Your task to perform on an android device: Open Reddit.com Image 0: 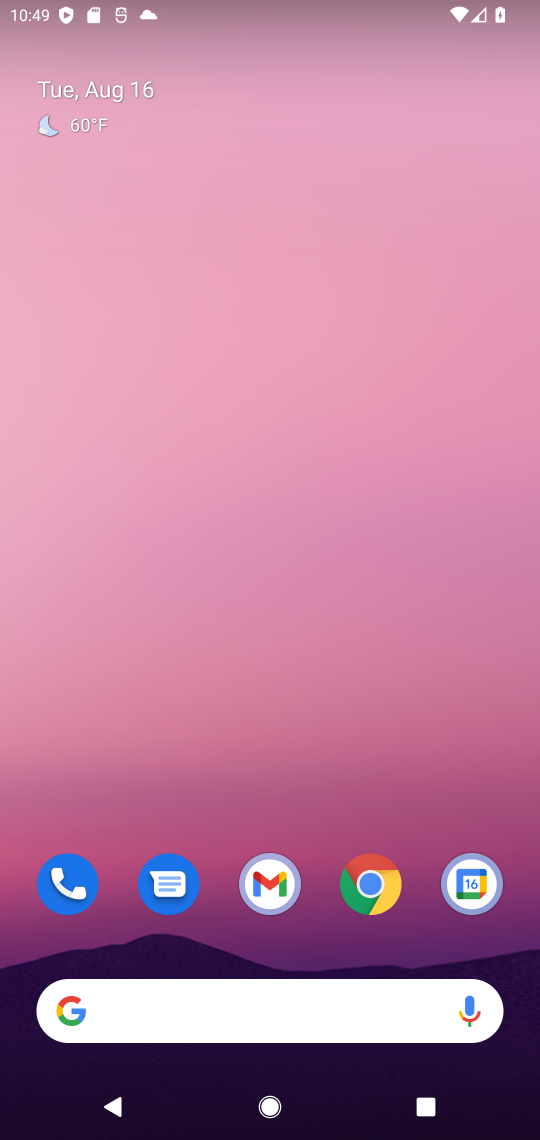
Step 0: click (365, 893)
Your task to perform on an android device: Open Reddit.com Image 1: 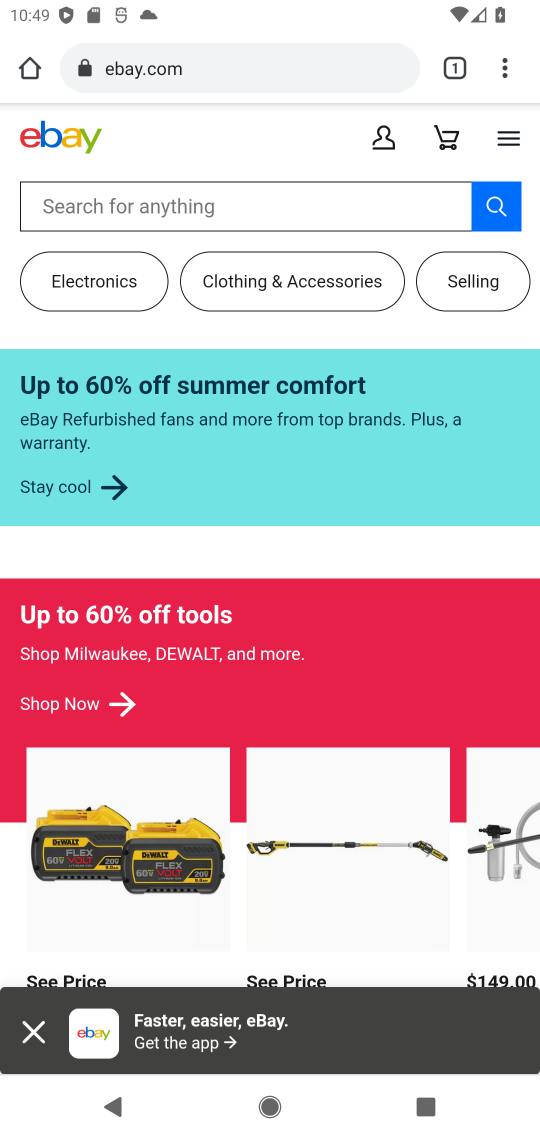
Step 1: click (177, 52)
Your task to perform on an android device: Open Reddit.com Image 2: 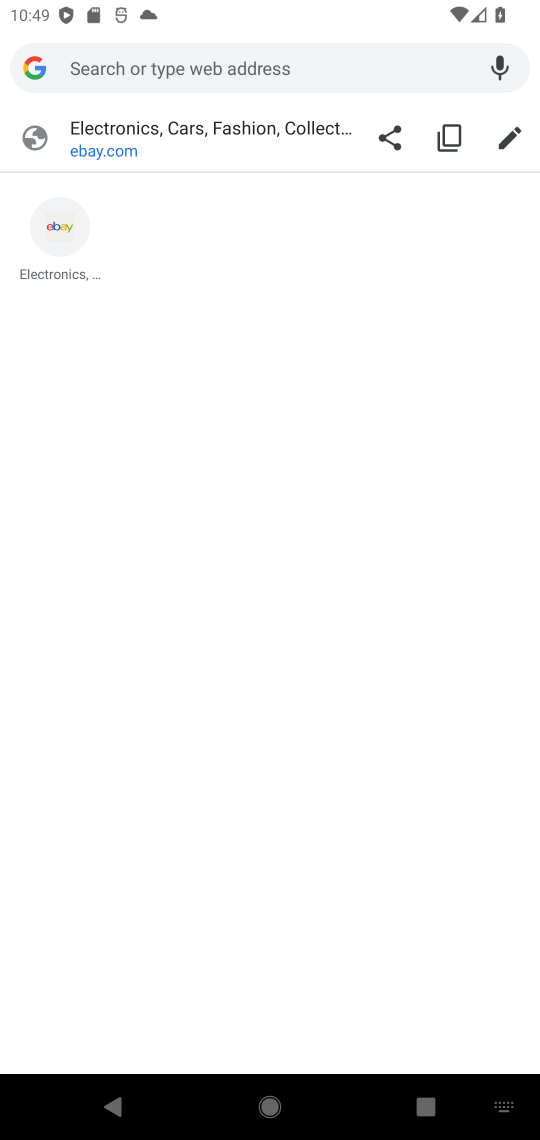
Step 2: type "www.reddit.com"
Your task to perform on an android device: Open Reddit.com Image 3: 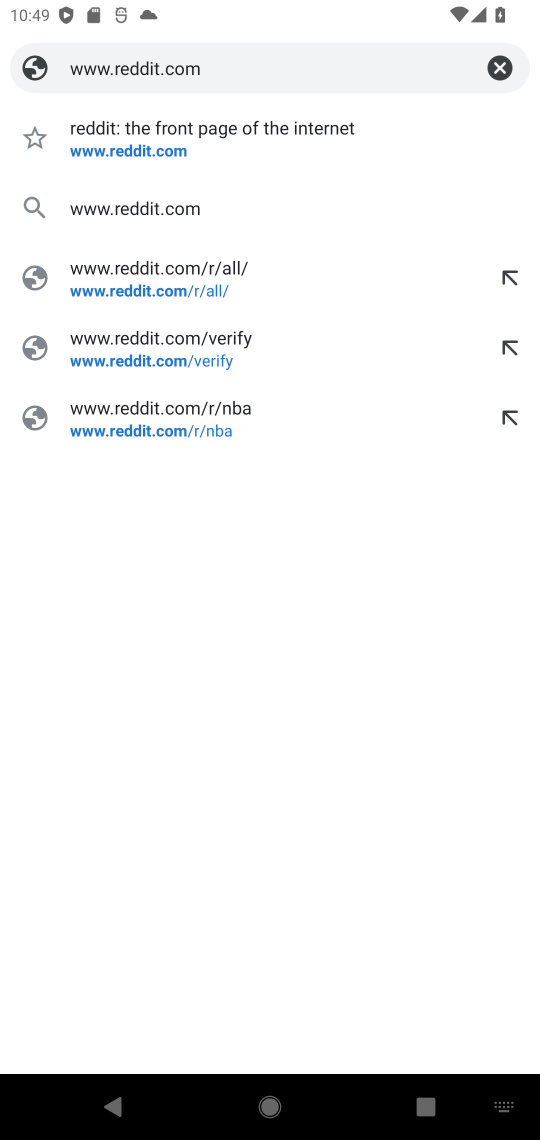
Step 3: click (123, 137)
Your task to perform on an android device: Open Reddit.com Image 4: 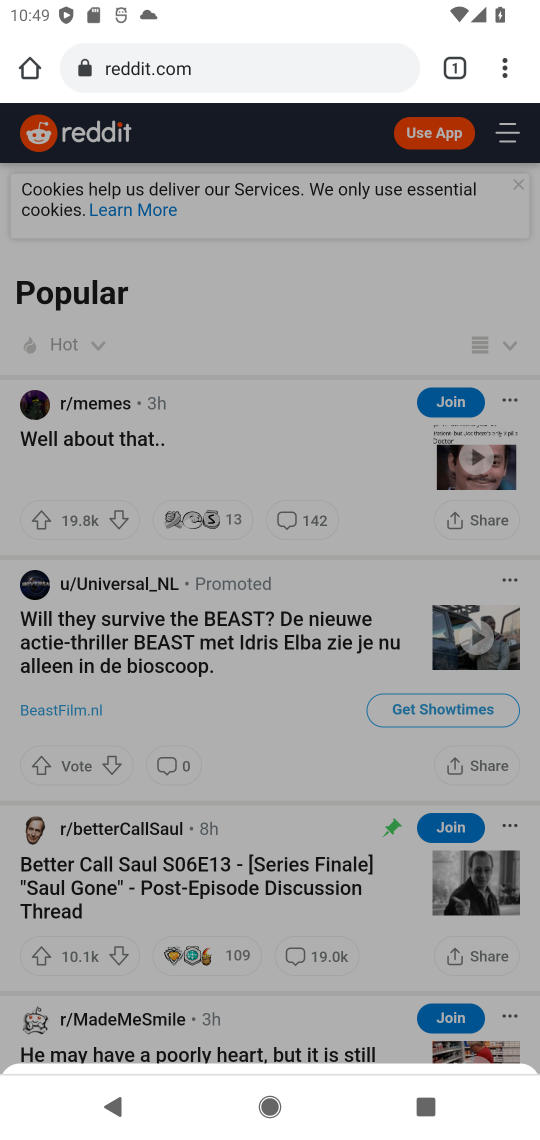
Step 4: task complete